Your task to perform on an android device: turn on the 24-hour format for clock Image 0: 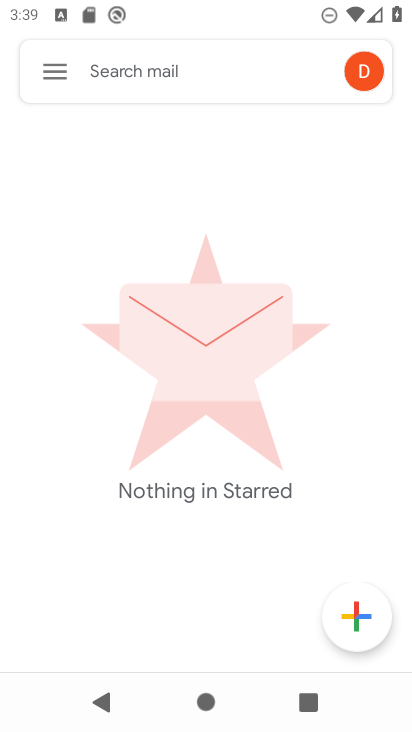
Step 0: press home button
Your task to perform on an android device: turn on the 24-hour format for clock Image 1: 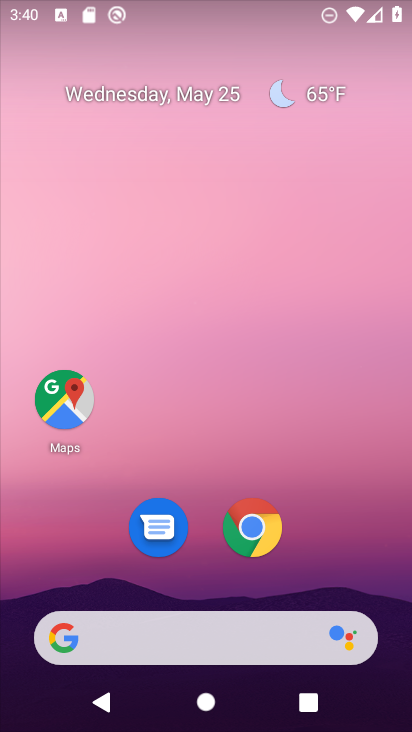
Step 1: drag from (129, 621) to (177, 104)
Your task to perform on an android device: turn on the 24-hour format for clock Image 2: 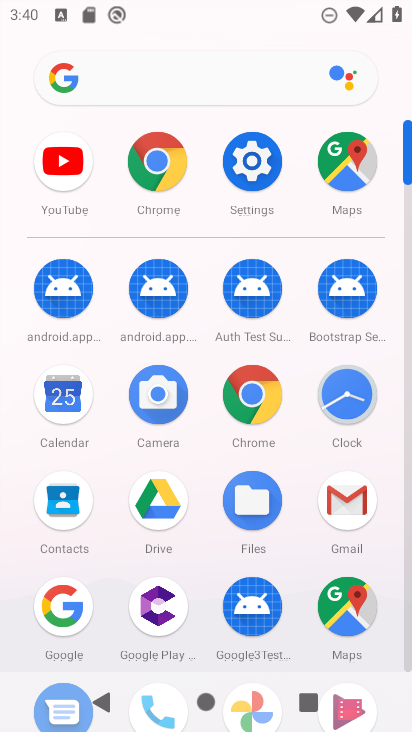
Step 2: click (351, 399)
Your task to perform on an android device: turn on the 24-hour format for clock Image 3: 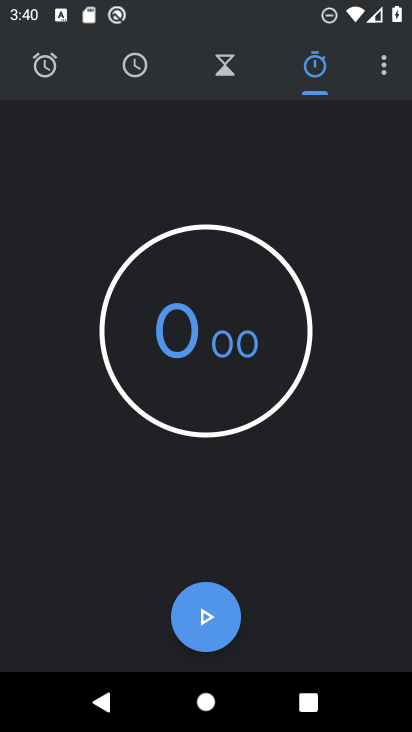
Step 3: click (385, 52)
Your task to perform on an android device: turn on the 24-hour format for clock Image 4: 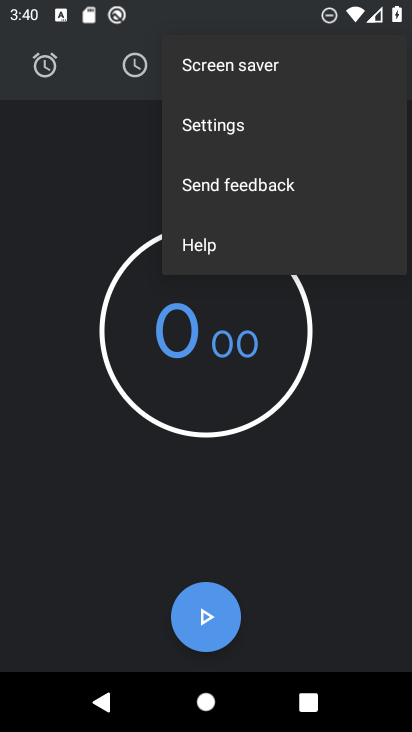
Step 4: click (235, 133)
Your task to perform on an android device: turn on the 24-hour format for clock Image 5: 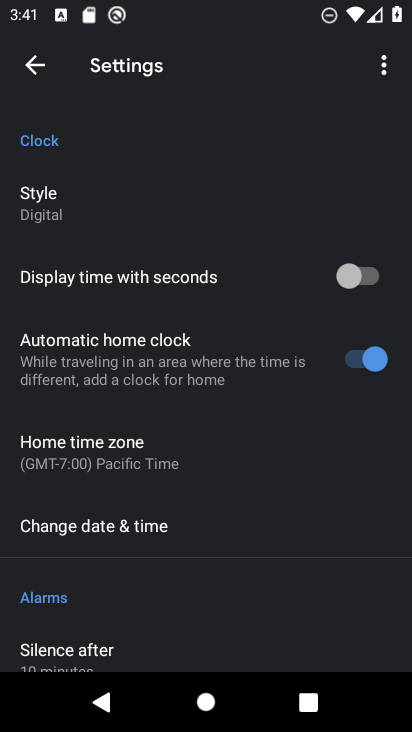
Step 5: click (197, 537)
Your task to perform on an android device: turn on the 24-hour format for clock Image 6: 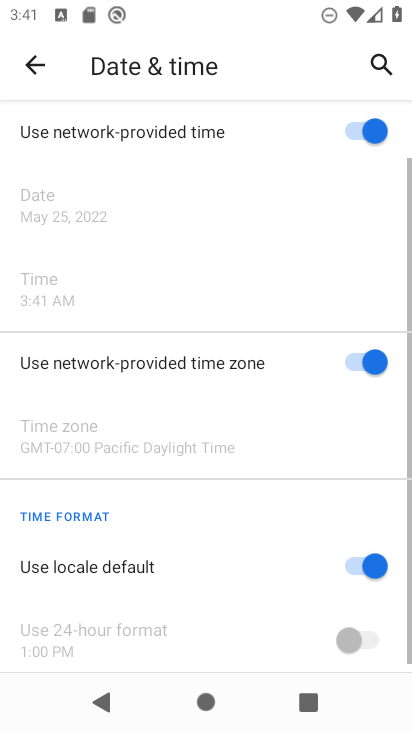
Step 6: drag from (214, 564) to (184, 123)
Your task to perform on an android device: turn on the 24-hour format for clock Image 7: 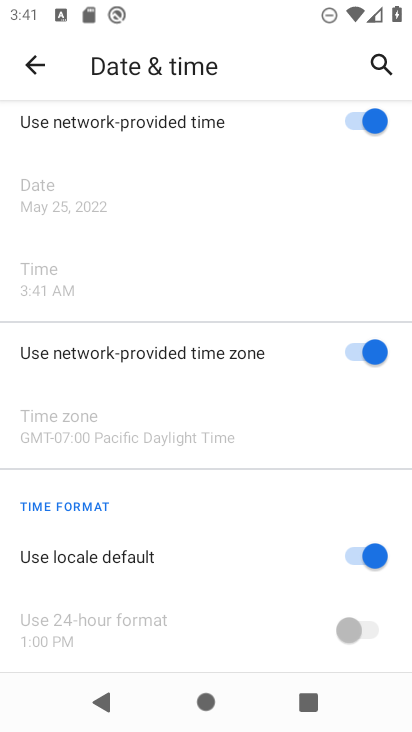
Step 7: click (354, 557)
Your task to perform on an android device: turn on the 24-hour format for clock Image 8: 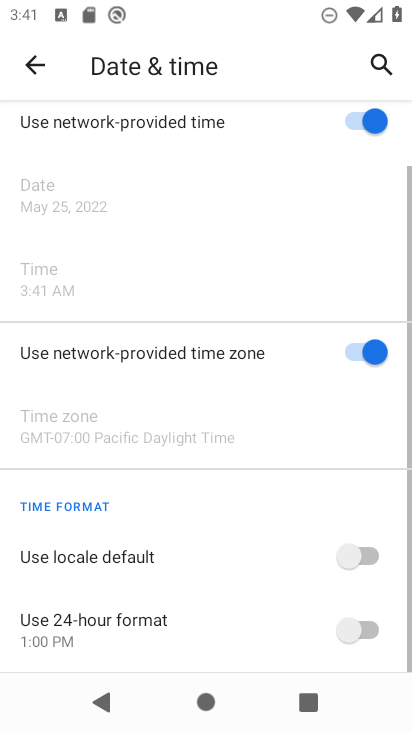
Step 8: click (365, 632)
Your task to perform on an android device: turn on the 24-hour format for clock Image 9: 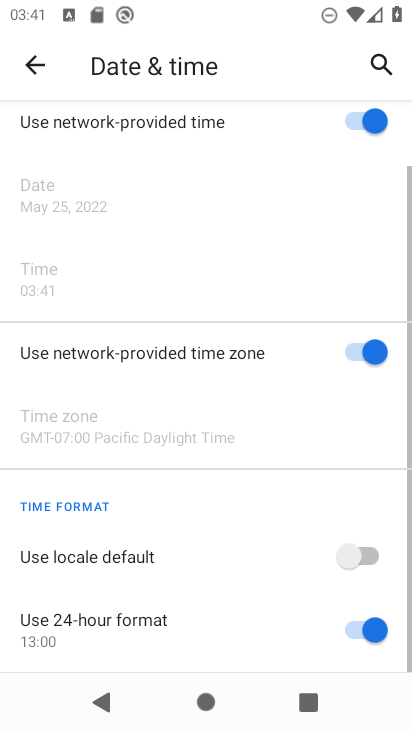
Step 9: task complete